Your task to perform on an android device: toggle notification dots Image 0: 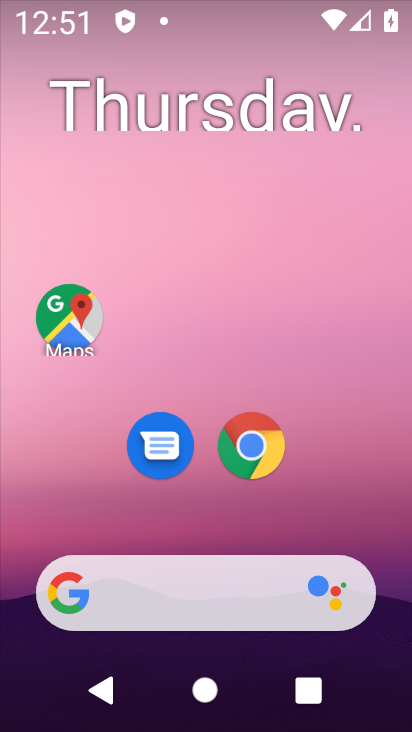
Step 0: drag from (195, 533) to (175, 7)
Your task to perform on an android device: toggle notification dots Image 1: 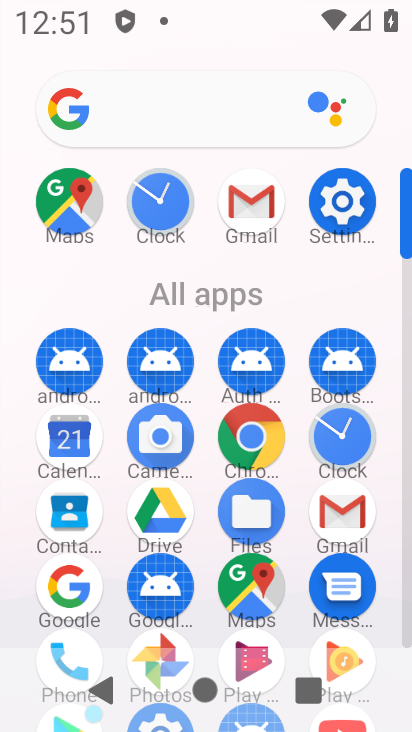
Step 1: click (350, 211)
Your task to perform on an android device: toggle notification dots Image 2: 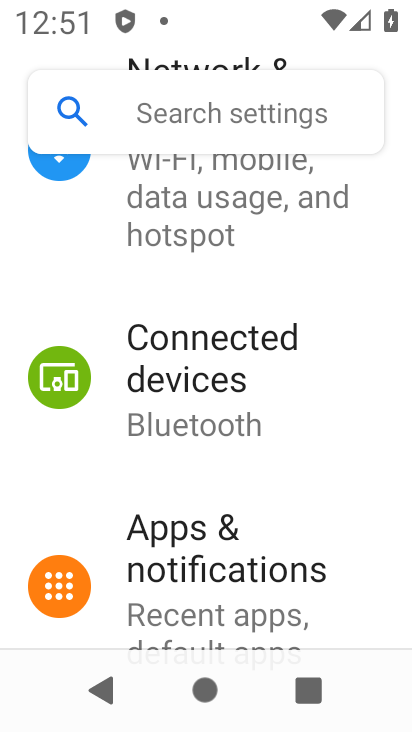
Step 2: click (264, 575)
Your task to perform on an android device: toggle notification dots Image 3: 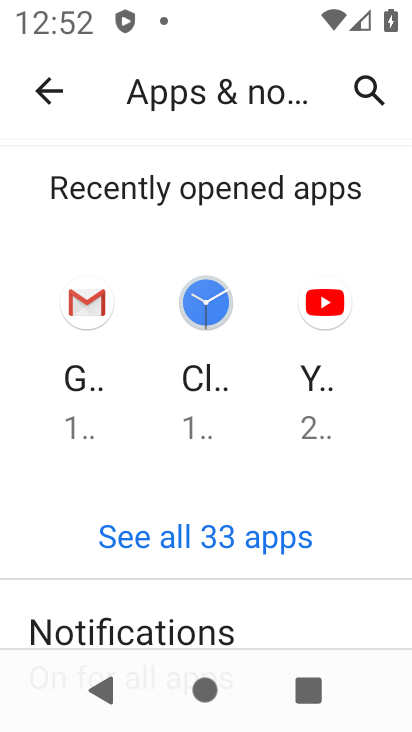
Step 3: click (228, 622)
Your task to perform on an android device: toggle notification dots Image 4: 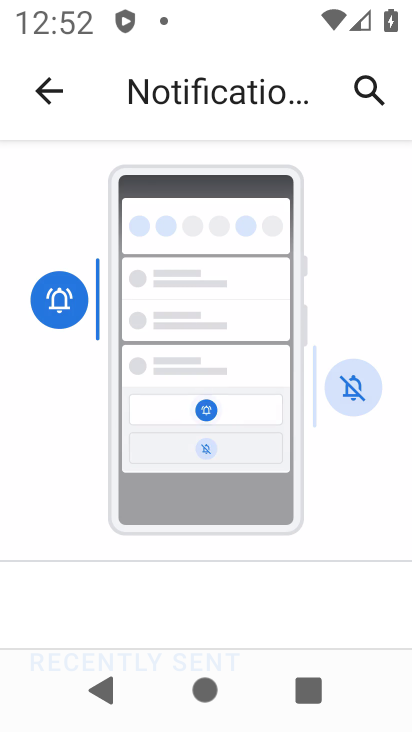
Step 4: drag from (148, 588) to (230, 105)
Your task to perform on an android device: toggle notification dots Image 5: 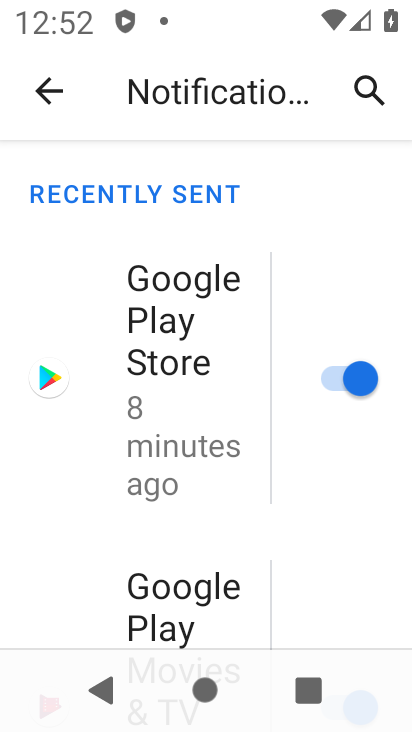
Step 5: drag from (93, 596) to (140, 206)
Your task to perform on an android device: toggle notification dots Image 6: 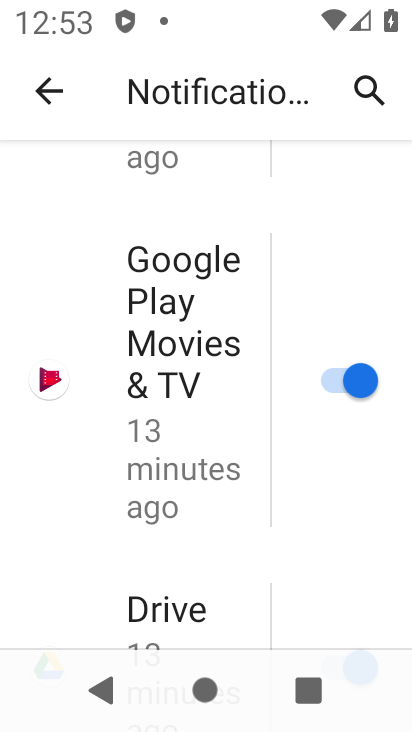
Step 6: drag from (123, 619) to (126, 314)
Your task to perform on an android device: toggle notification dots Image 7: 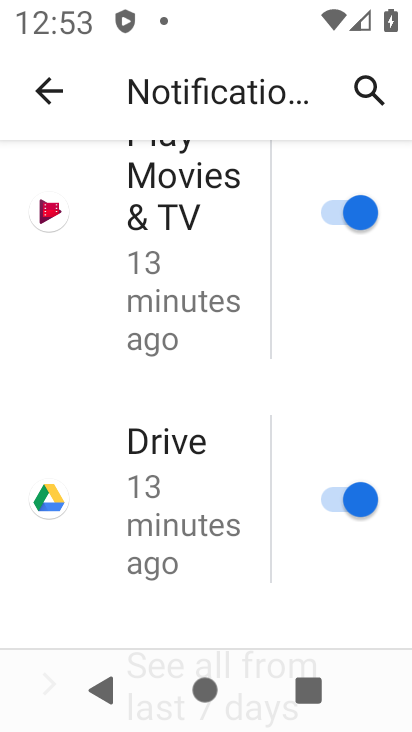
Step 7: drag from (145, 599) to (184, 329)
Your task to perform on an android device: toggle notification dots Image 8: 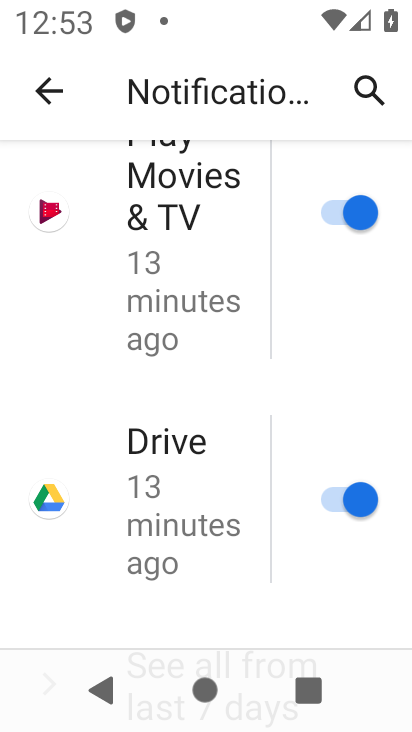
Step 8: drag from (142, 622) to (174, 266)
Your task to perform on an android device: toggle notification dots Image 9: 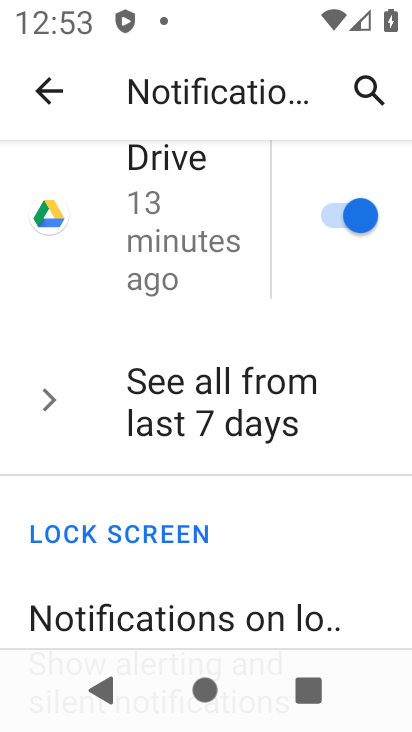
Step 9: drag from (151, 598) to (199, 59)
Your task to perform on an android device: toggle notification dots Image 10: 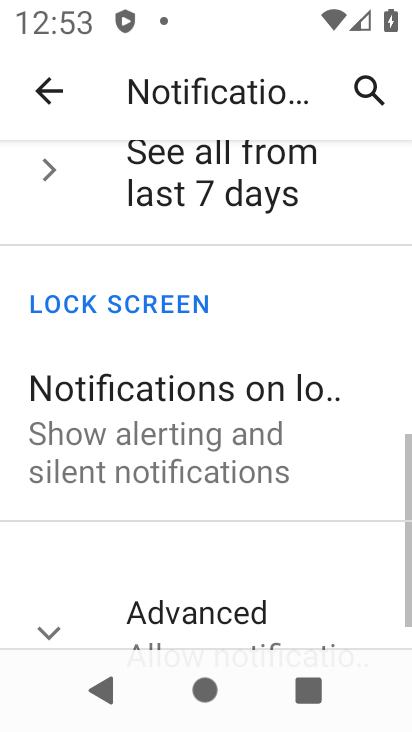
Step 10: drag from (171, 615) to (228, 143)
Your task to perform on an android device: toggle notification dots Image 11: 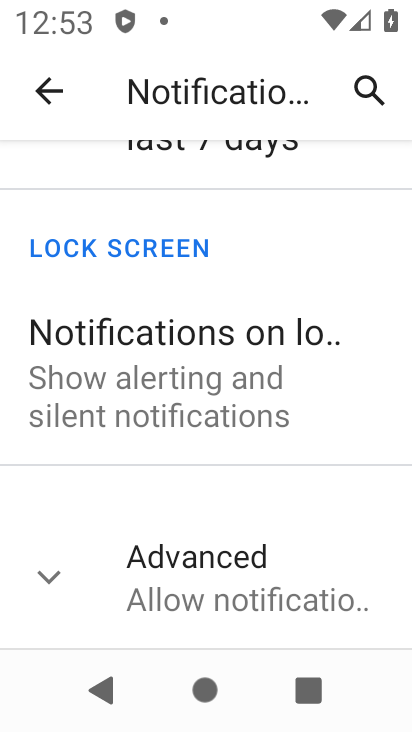
Step 11: click (182, 562)
Your task to perform on an android device: toggle notification dots Image 12: 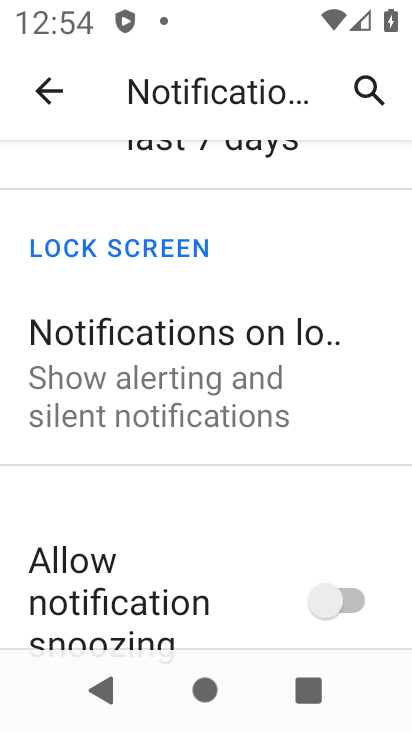
Step 12: drag from (123, 621) to (207, 170)
Your task to perform on an android device: toggle notification dots Image 13: 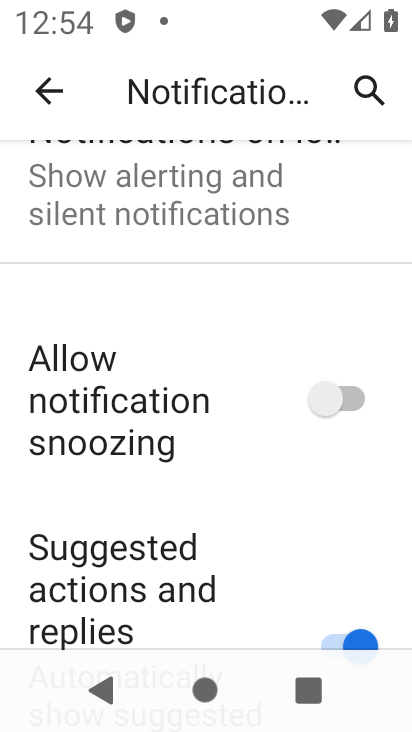
Step 13: click (220, 83)
Your task to perform on an android device: toggle notification dots Image 14: 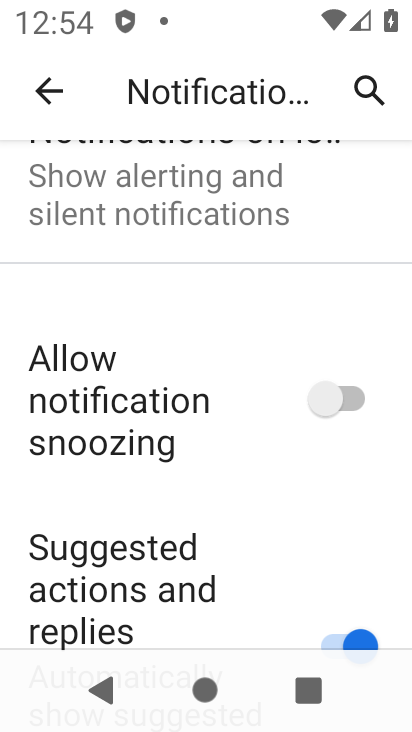
Step 14: drag from (152, 572) to (208, 235)
Your task to perform on an android device: toggle notification dots Image 15: 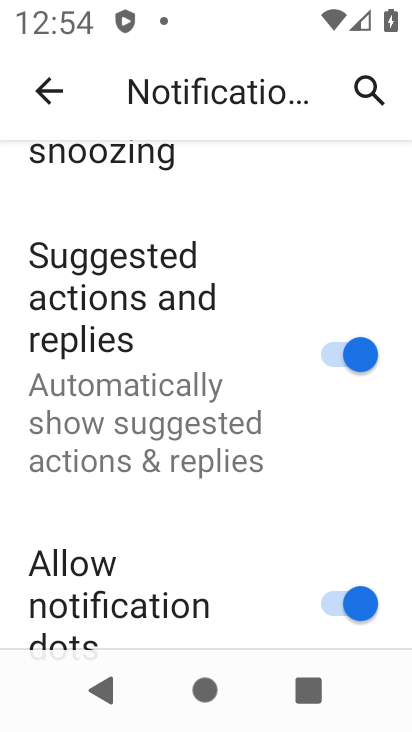
Step 15: click (339, 607)
Your task to perform on an android device: toggle notification dots Image 16: 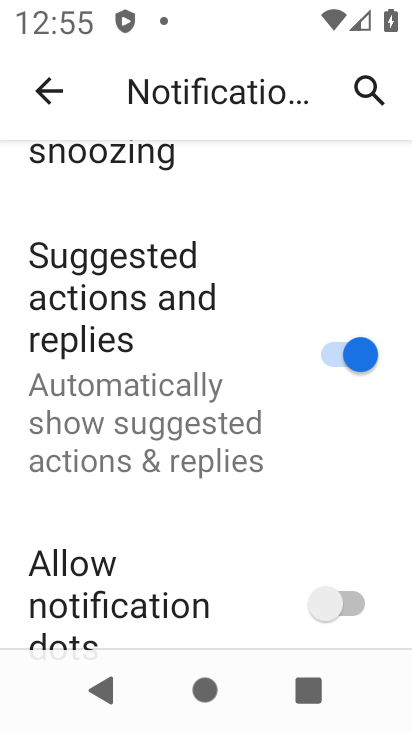
Step 16: task complete